Your task to perform on an android device: toggle notification dots Image 0: 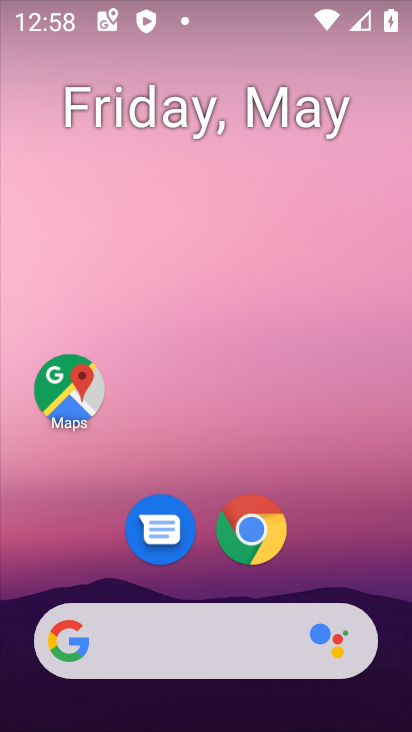
Step 0: drag from (373, 556) to (343, 132)
Your task to perform on an android device: toggle notification dots Image 1: 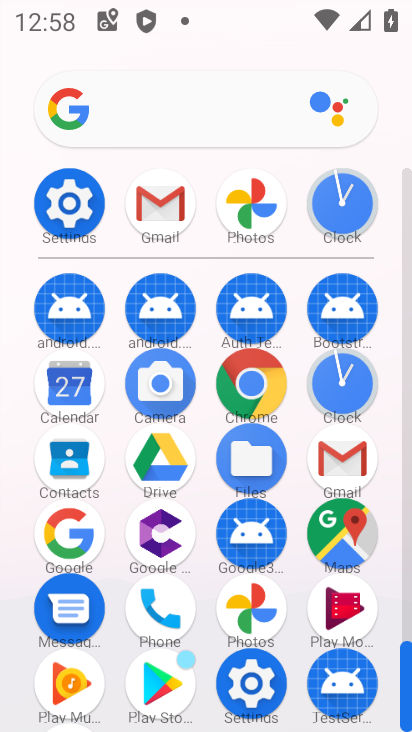
Step 1: click (49, 214)
Your task to perform on an android device: toggle notification dots Image 2: 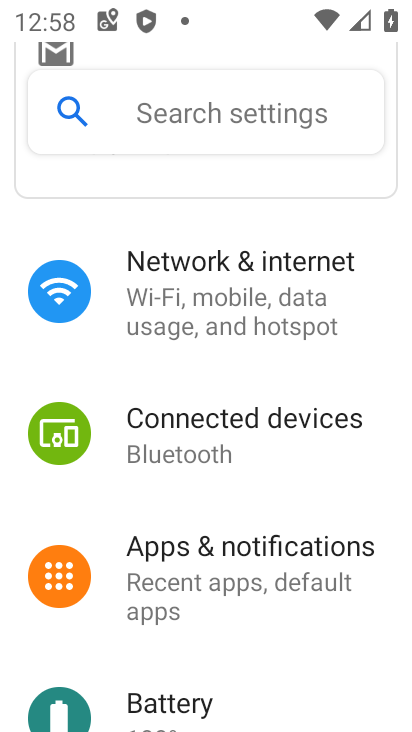
Step 2: click (207, 577)
Your task to perform on an android device: toggle notification dots Image 3: 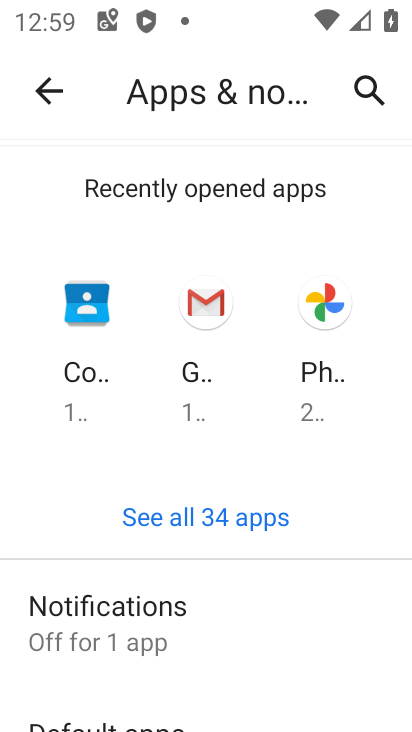
Step 3: drag from (222, 656) to (220, 312)
Your task to perform on an android device: toggle notification dots Image 4: 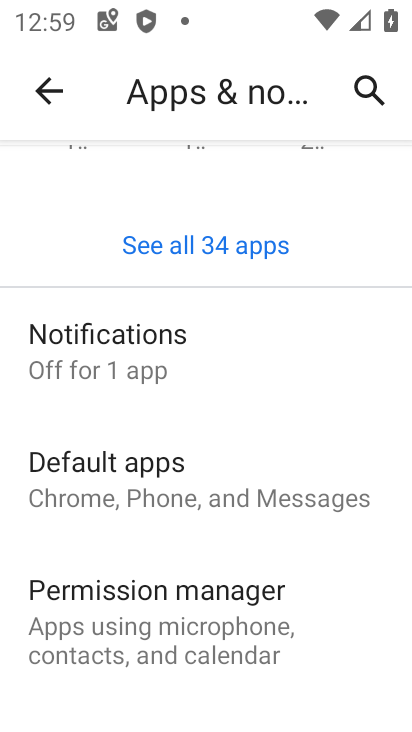
Step 4: click (170, 380)
Your task to perform on an android device: toggle notification dots Image 5: 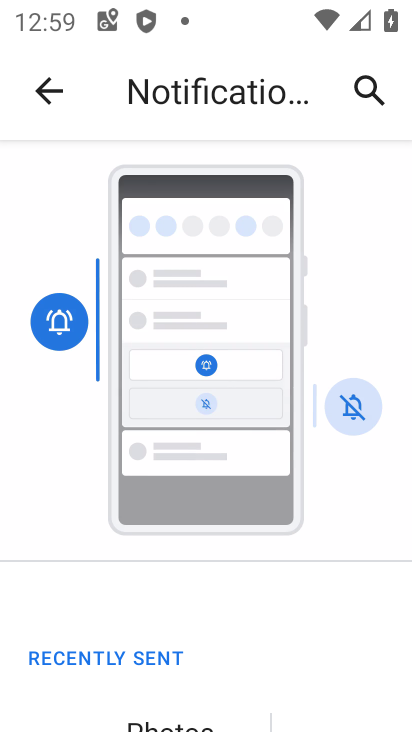
Step 5: drag from (189, 597) to (208, 126)
Your task to perform on an android device: toggle notification dots Image 6: 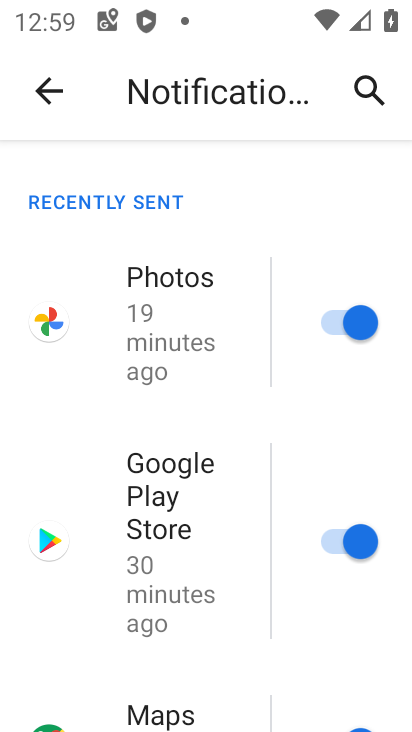
Step 6: drag from (214, 600) to (216, 265)
Your task to perform on an android device: toggle notification dots Image 7: 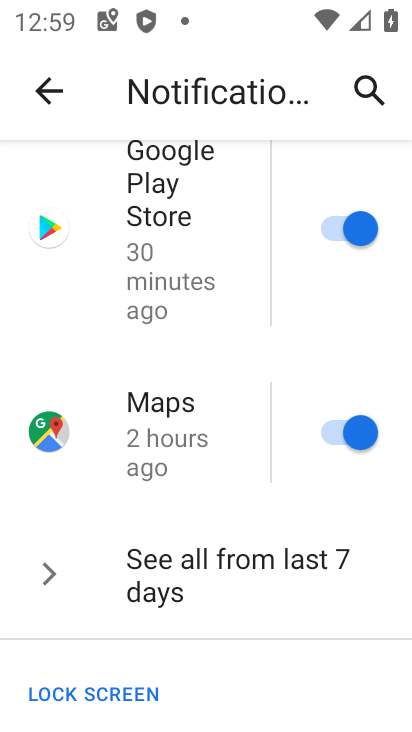
Step 7: drag from (218, 612) to (233, 284)
Your task to perform on an android device: toggle notification dots Image 8: 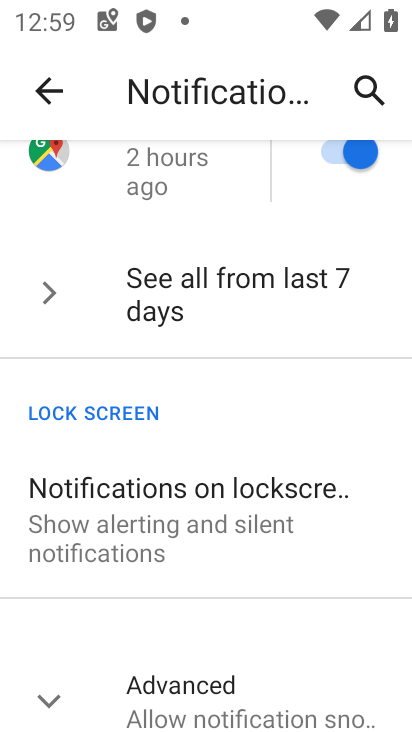
Step 8: drag from (228, 610) to (249, 387)
Your task to perform on an android device: toggle notification dots Image 9: 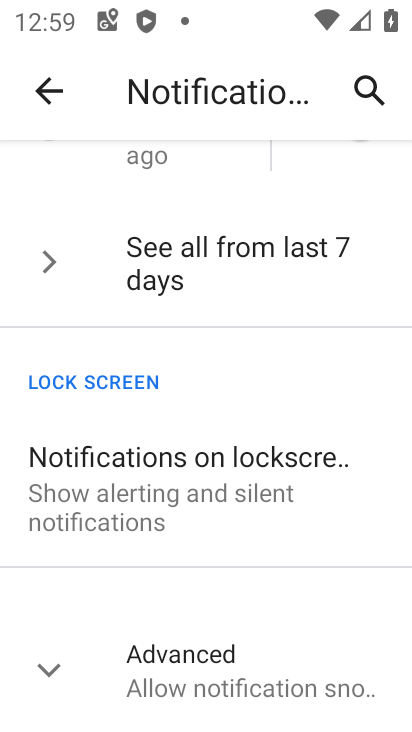
Step 9: click (154, 610)
Your task to perform on an android device: toggle notification dots Image 10: 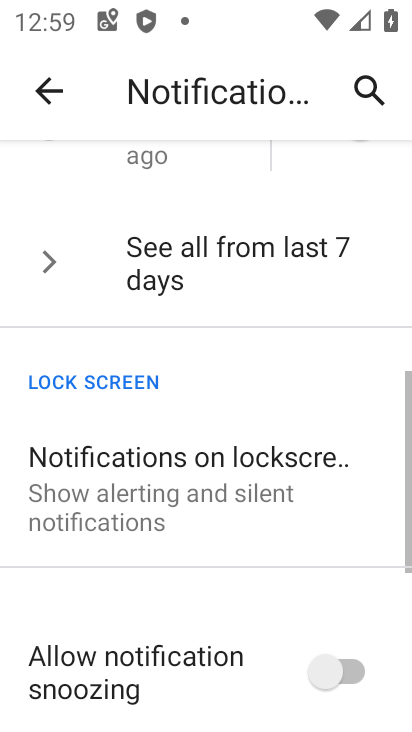
Step 10: drag from (251, 569) to (251, 269)
Your task to perform on an android device: toggle notification dots Image 11: 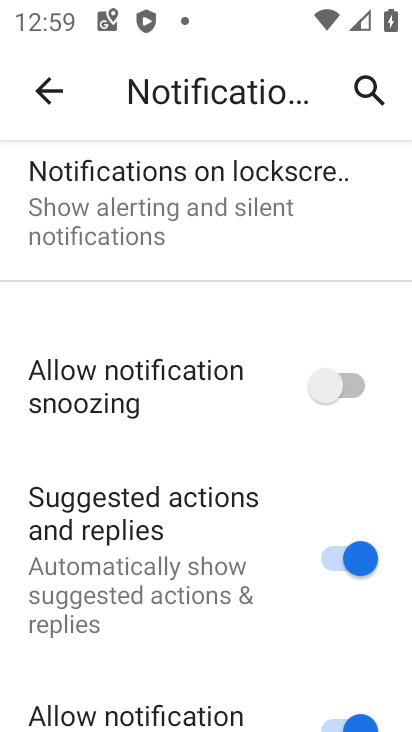
Step 11: drag from (194, 574) to (211, 248)
Your task to perform on an android device: toggle notification dots Image 12: 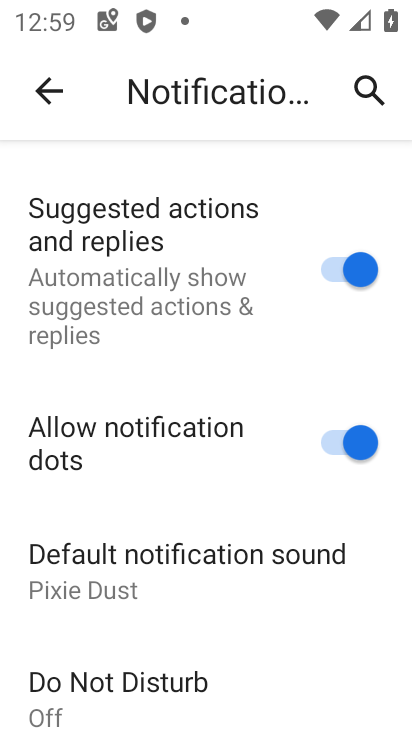
Step 12: click (338, 448)
Your task to perform on an android device: toggle notification dots Image 13: 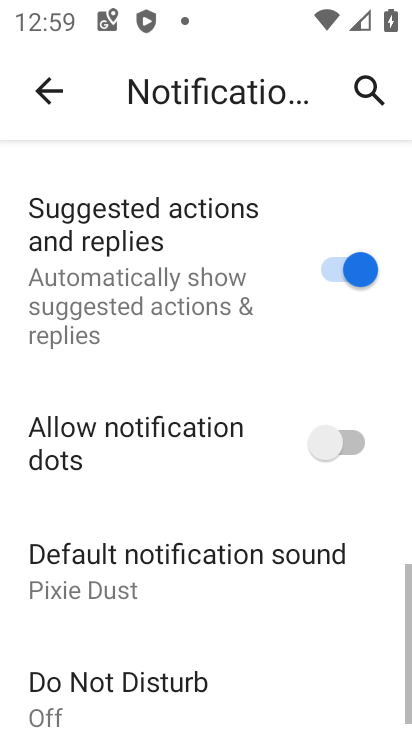
Step 13: task complete